Your task to perform on an android device: open app "Grab" (install if not already installed) and enter user name: "interspersion@gmail.com" and password: "aristocrats" Image 0: 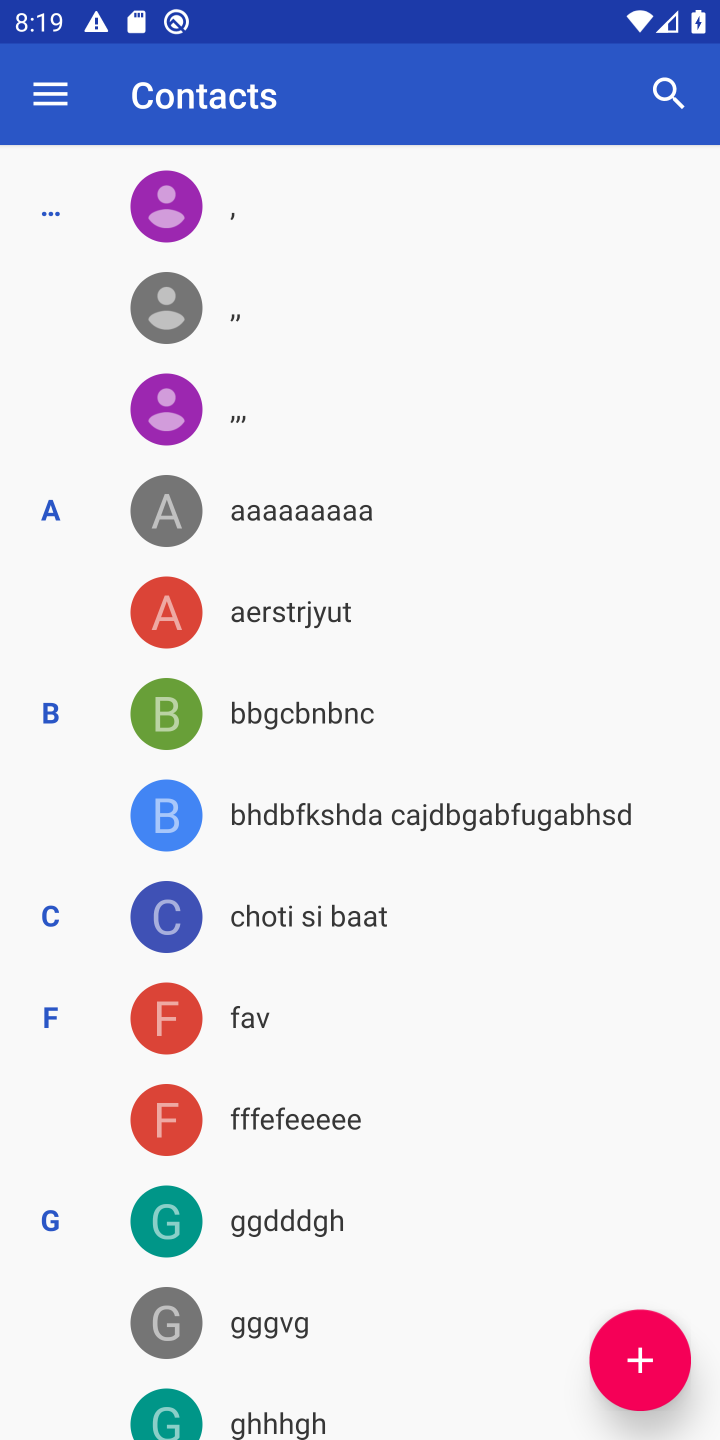
Step 0: press home button
Your task to perform on an android device: open app "Grab" (install if not already installed) and enter user name: "interspersion@gmail.com" and password: "aristocrats" Image 1: 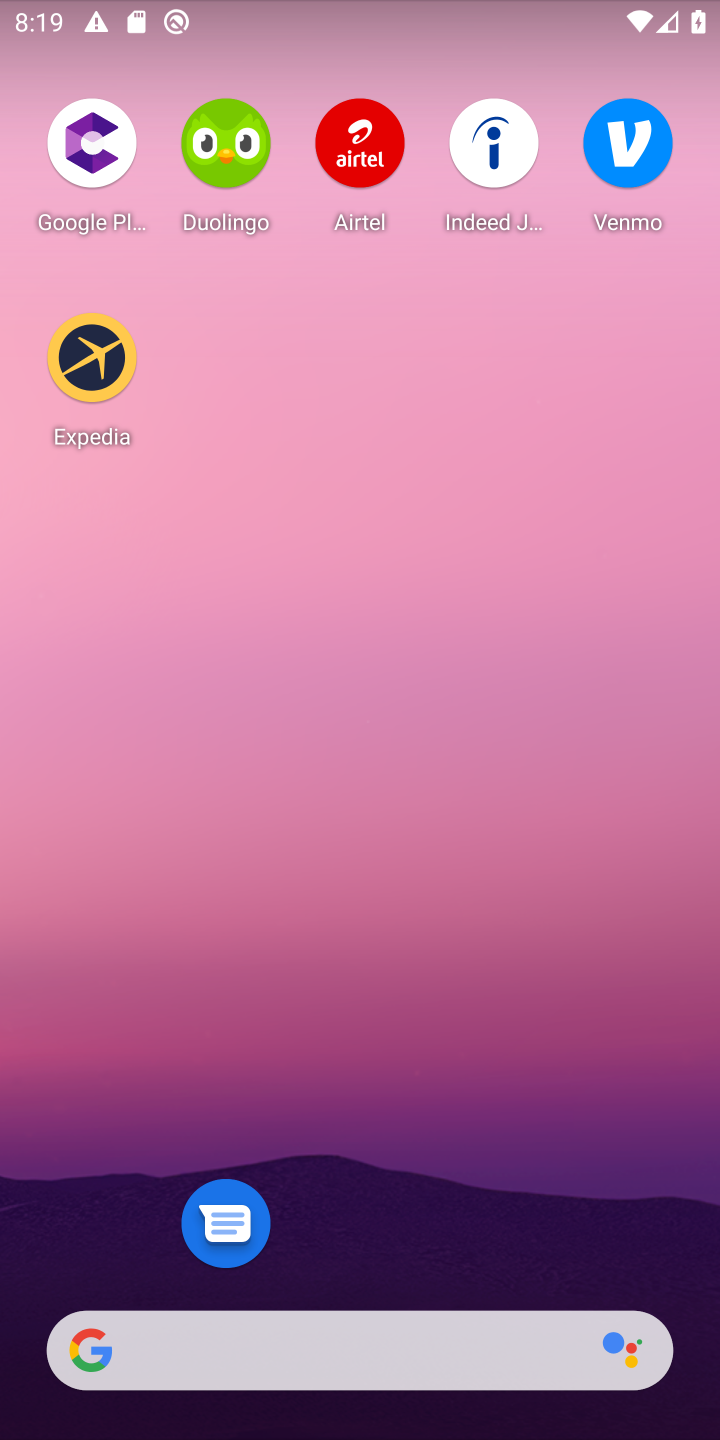
Step 1: drag from (389, 807) to (412, 214)
Your task to perform on an android device: open app "Grab" (install if not already installed) and enter user name: "interspersion@gmail.com" and password: "aristocrats" Image 2: 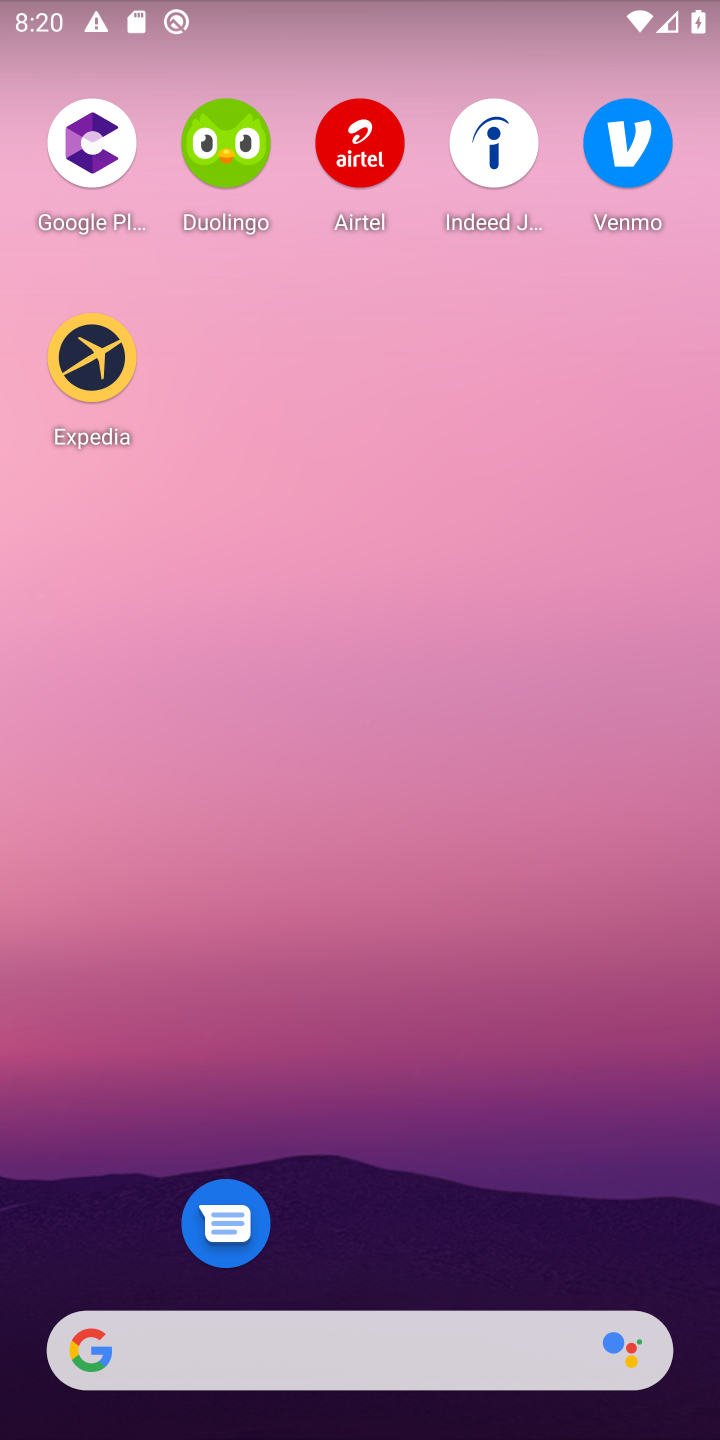
Step 2: drag from (333, 1142) to (308, 214)
Your task to perform on an android device: open app "Grab" (install if not already installed) and enter user name: "interspersion@gmail.com" and password: "aristocrats" Image 3: 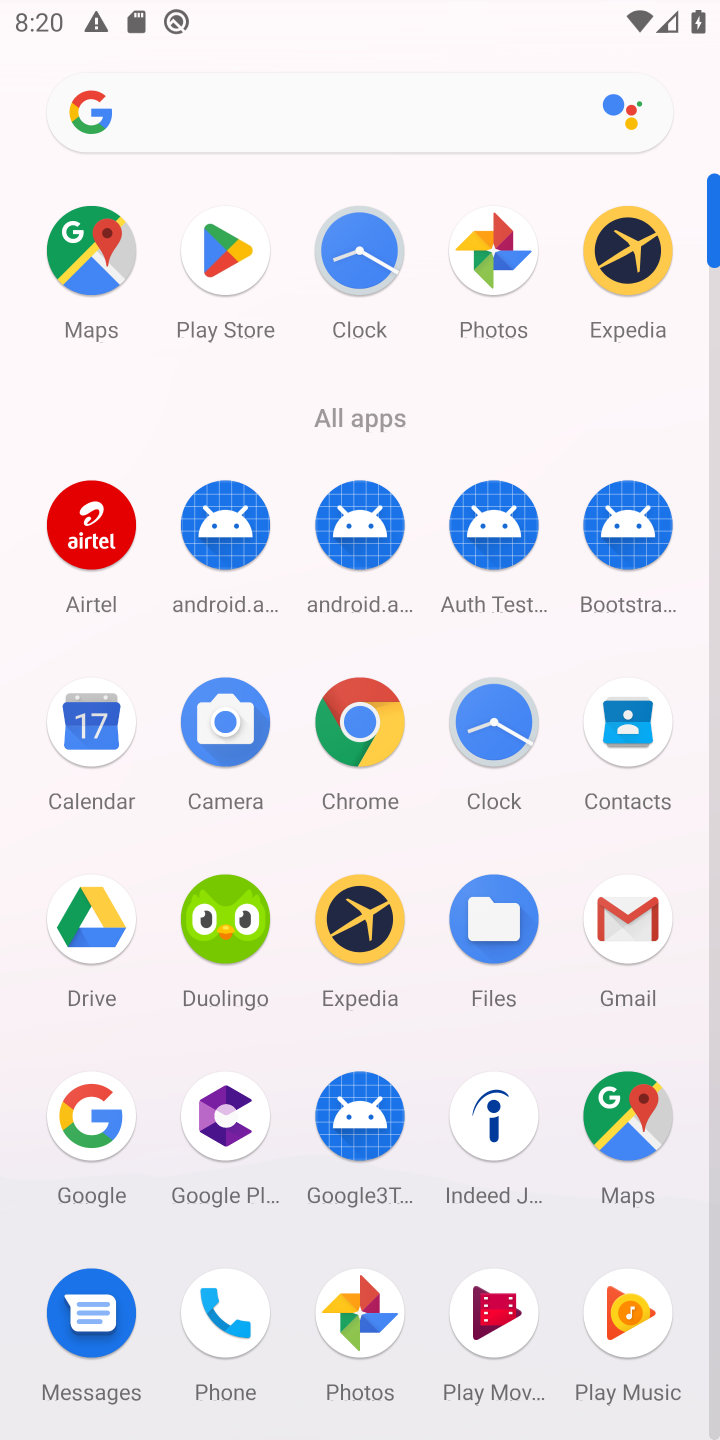
Step 3: click (238, 250)
Your task to perform on an android device: open app "Grab" (install if not already installed) and enter user name: "interspersion@gmail.com" and password: "aristocrats" Image 4: 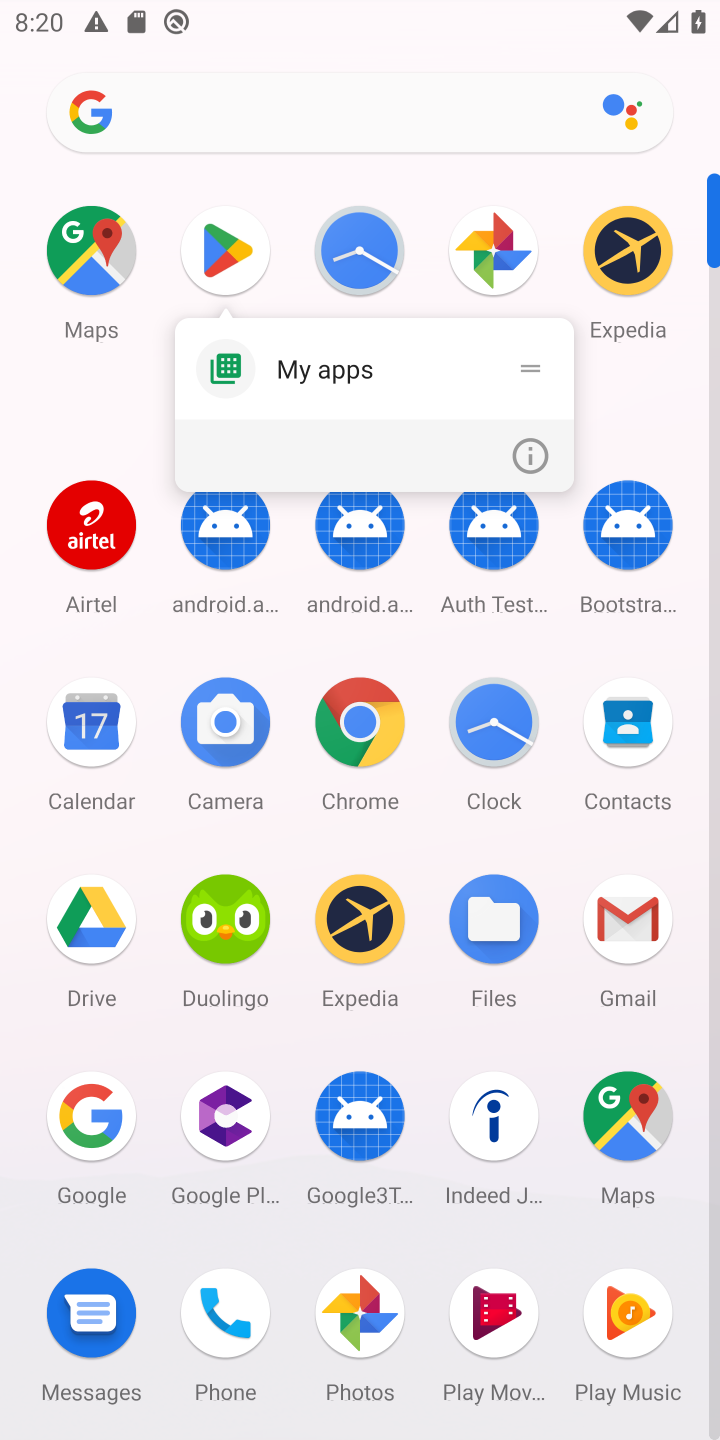
Step 4: click (226, 251)
Your task to perform on an android device: open app "Grab" (install if not already installed) and enter user name: "interspersion@gmail.com" and password: "aristocrats" Image 5: 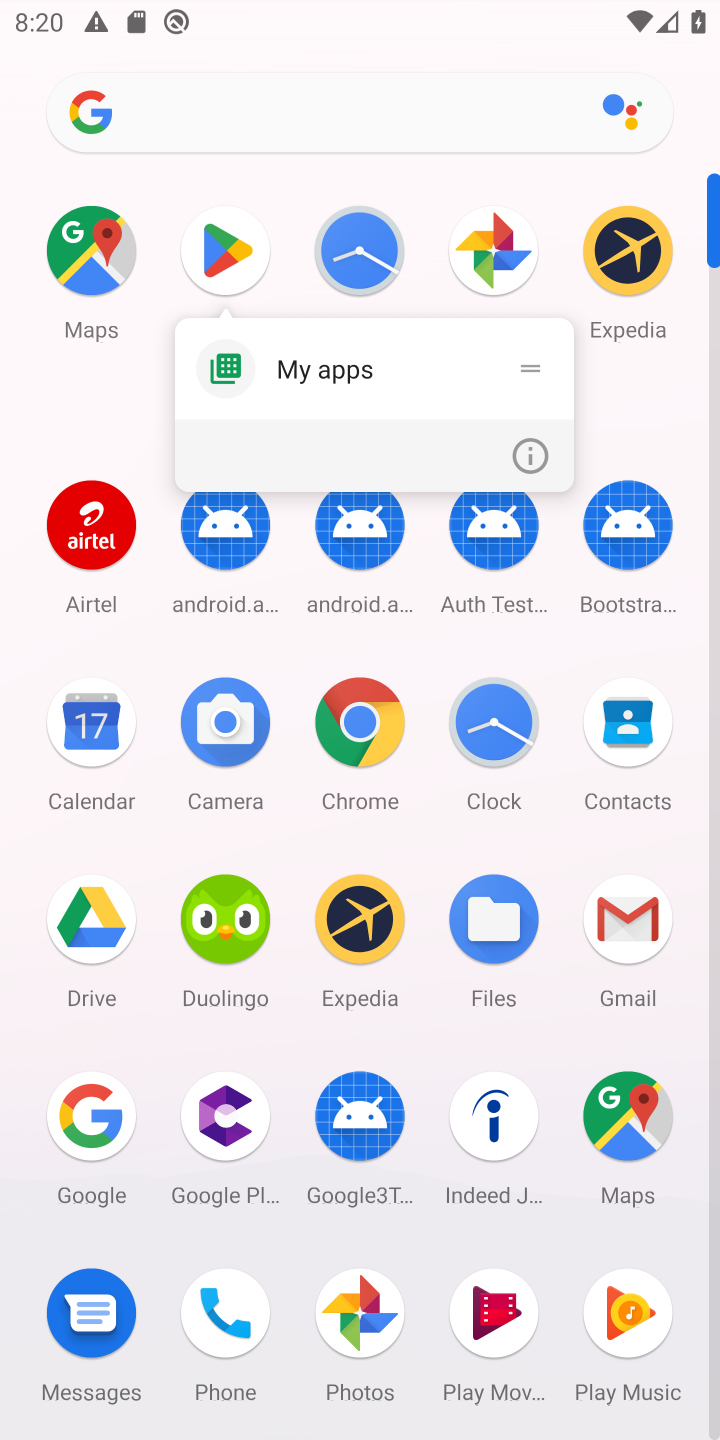
Step 5: click (225, 244)
Your task to perform on an android device: open app "Grab" (install if not already installed) and enter user name: "interspersion@gmail.com" and password: "aristocrats" Image 6: 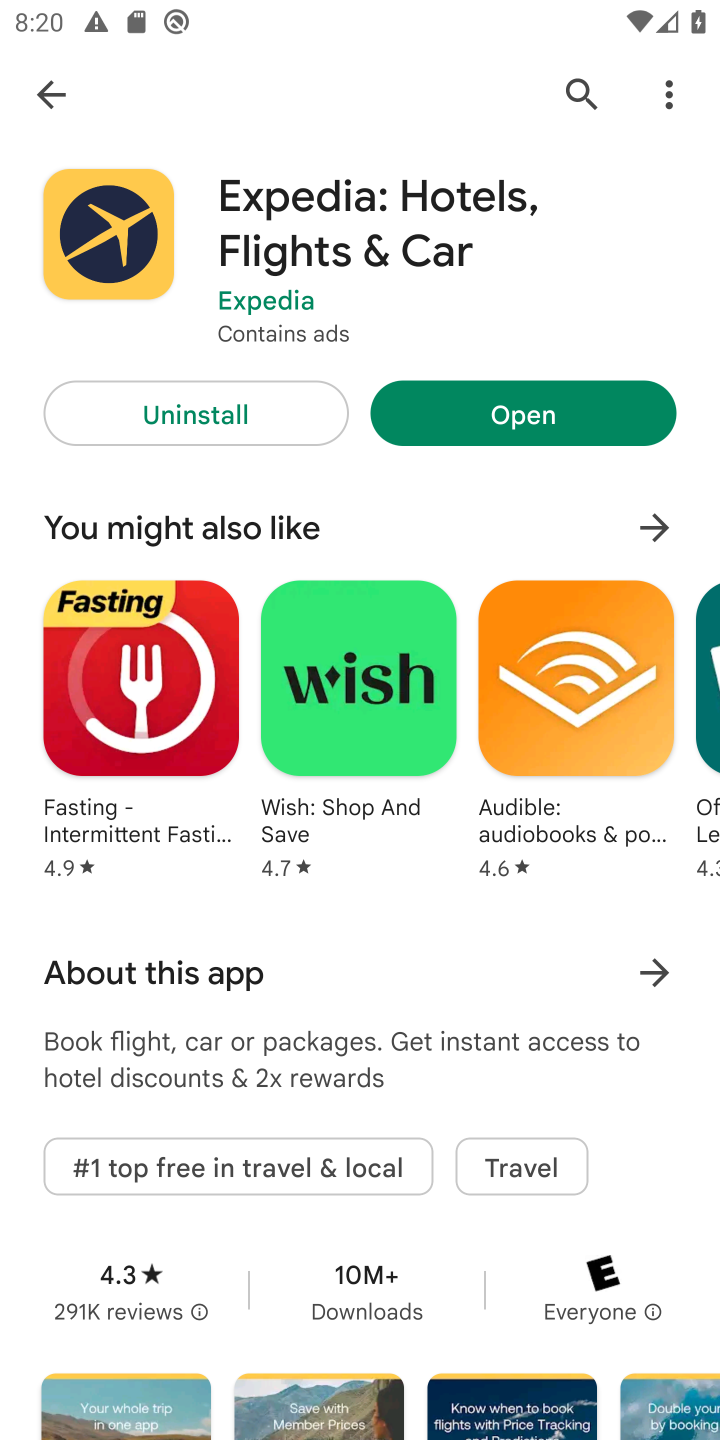
Step 6: click (589, 85)
Your task to perform on an android device: open app "Grab" (install if not already installed) and enter user name: "interspersion@gmail.com" and password: "aristocrats" Image 7: 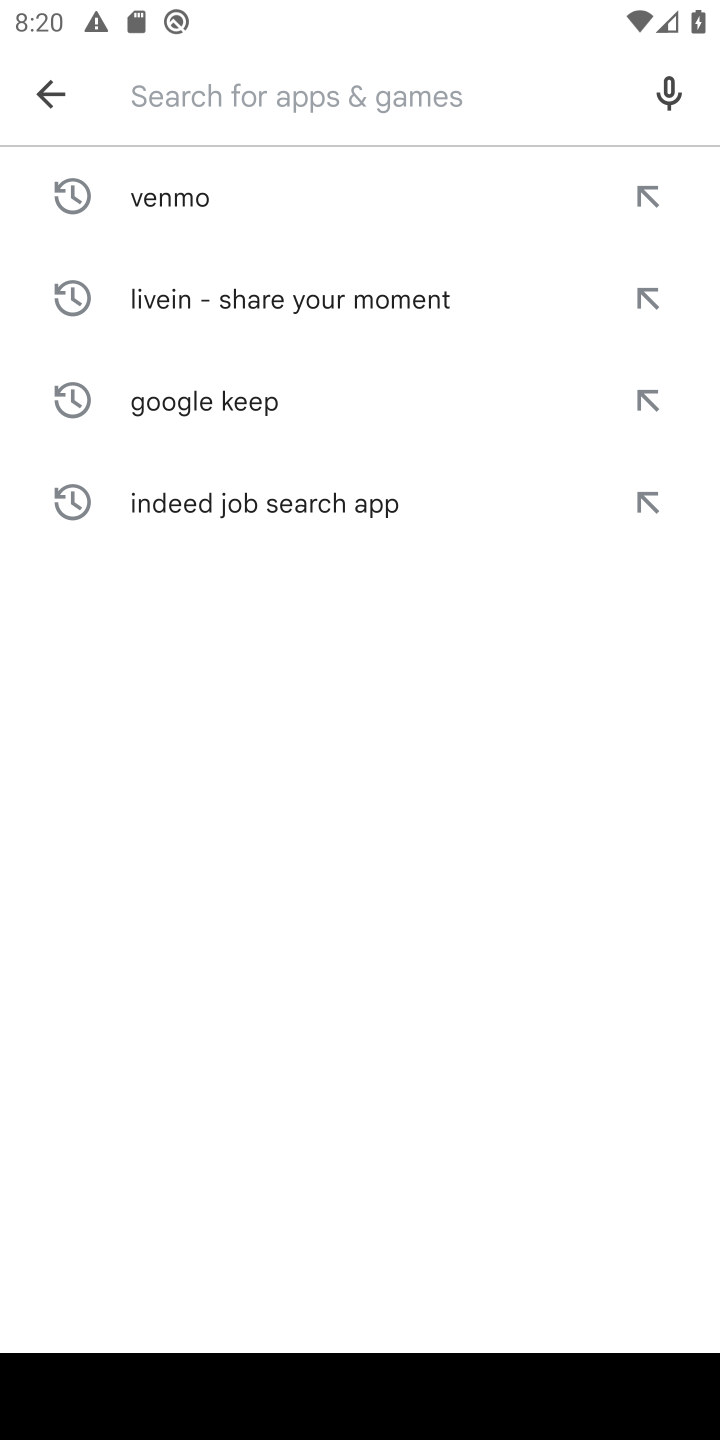
Step 7: type "Grab"
Your task to perform on an android device: open app "Grab" (install if not already installed) and enter user name: "interspersion@gmail.com" and password: "aristocrats" Image 8: 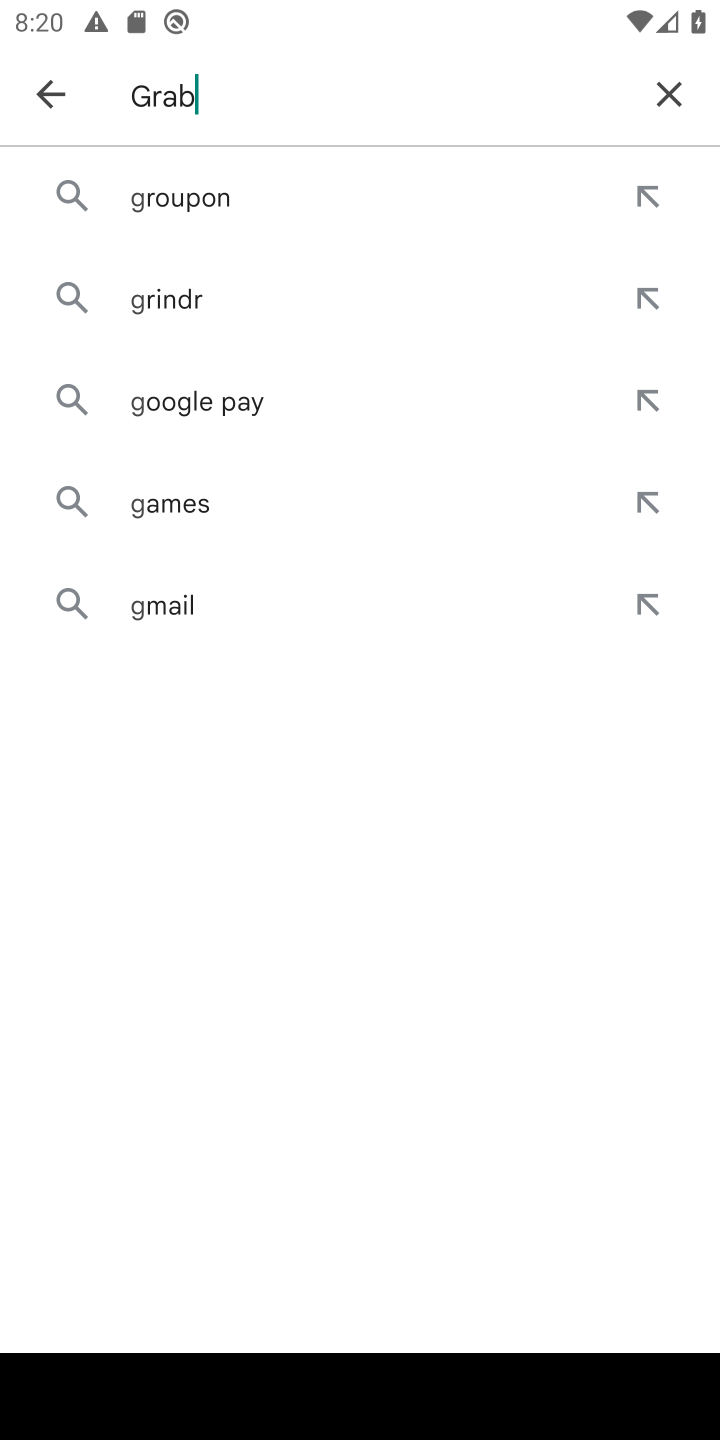
Step 8: type ""
Your task to perform on an android device: open app "Grab" (install if not already installed) and enter user name: "interspersion@gmail.com" and password: "aristocrats" Image 9: 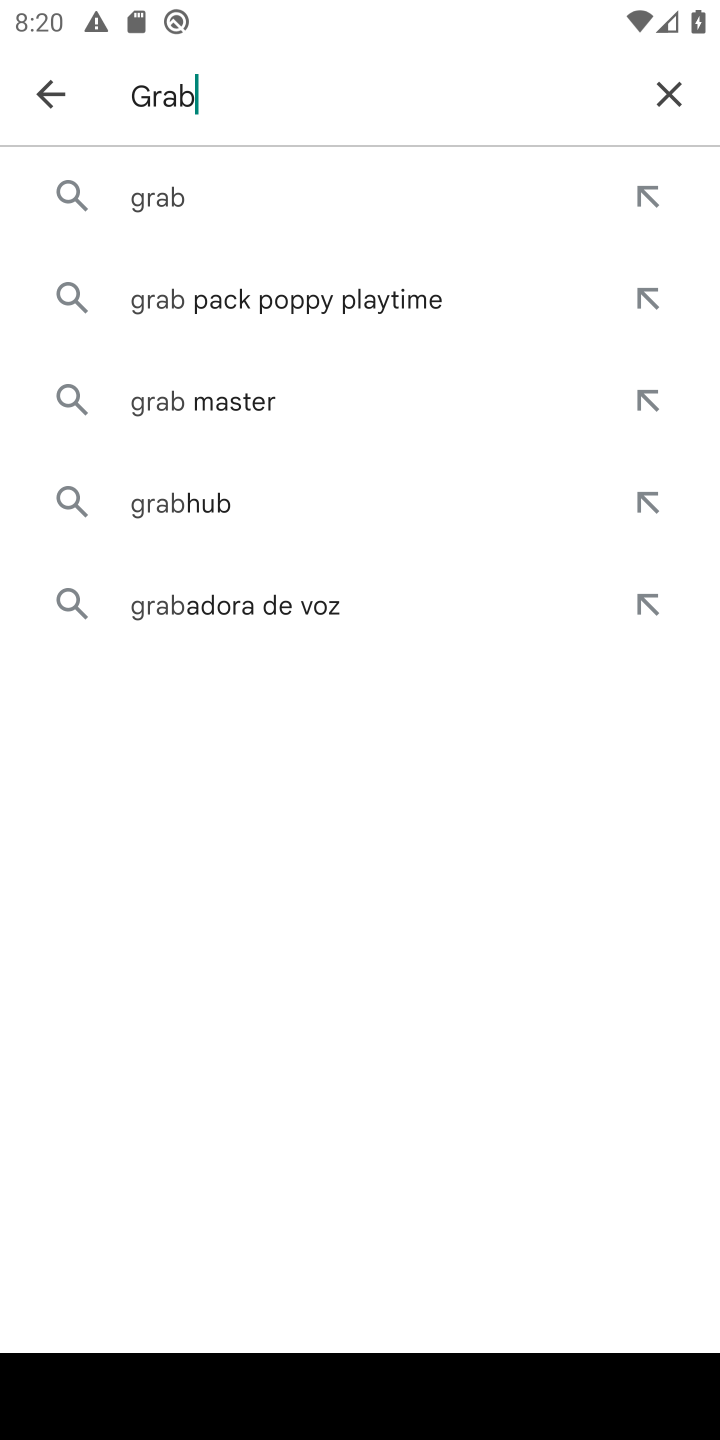
Step 9: click (150, 192)
Your task to perform on an android device: open app "Grab" (install if not already installed) and enter user name: "interspersion@gmail.com" and password: "aristocrats" Image 10: 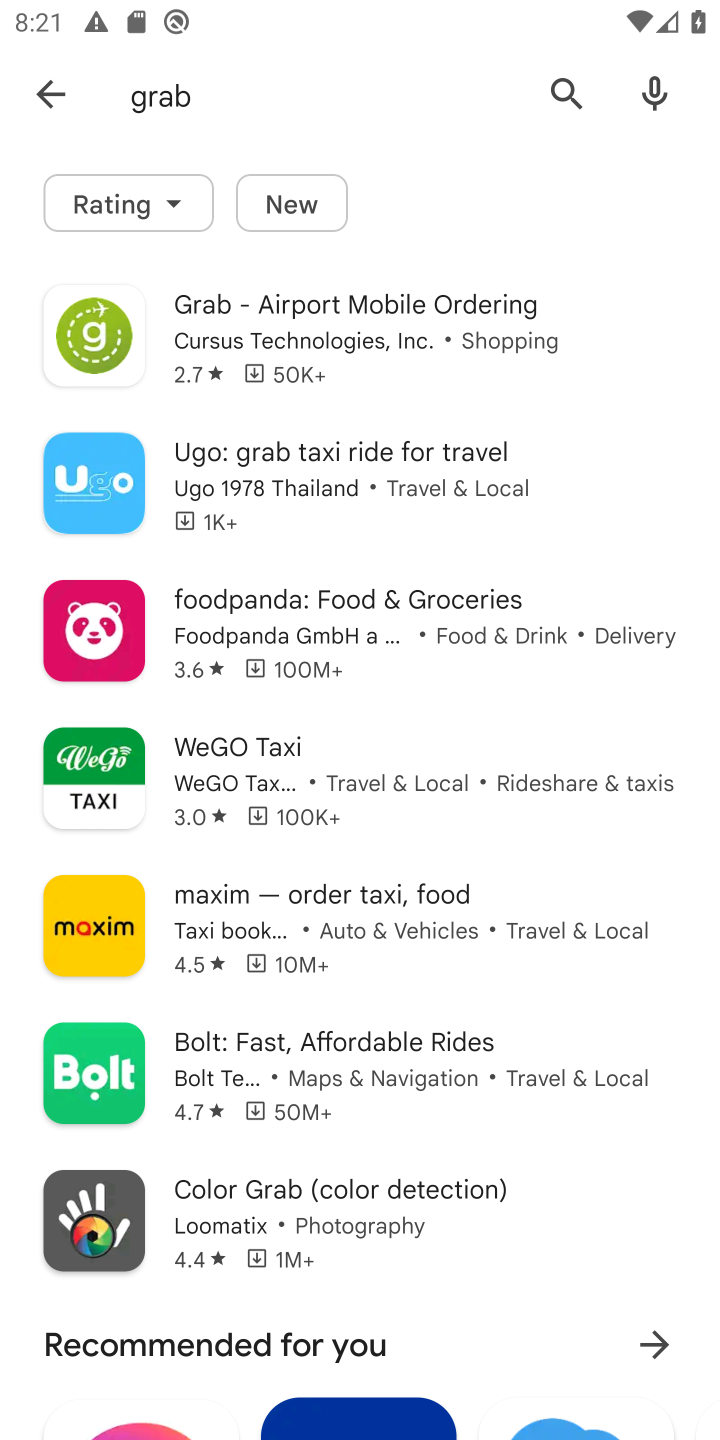
Step 10: click (222, 303)
Your task to perform on an android device: open app "Grab" (install if not already installed) and enter user name: "interspersion@gmail.com" and password: "aristocrats" Image 11: 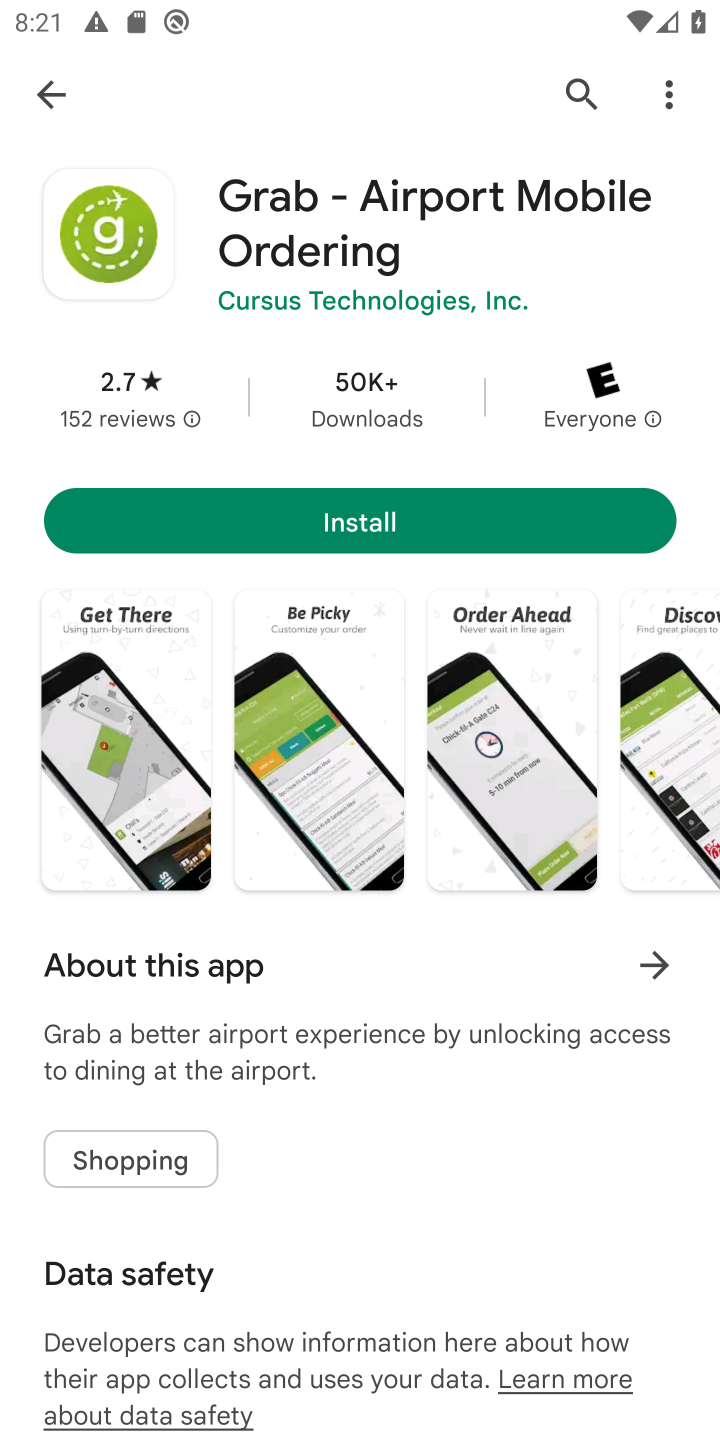
Step 11: click (353, 532)
Your task to perform on an android device: open app "Grab" (install if not already installed) and enter user name: "interspersion@gmail.com" and password: "aristocrats" Image 12: 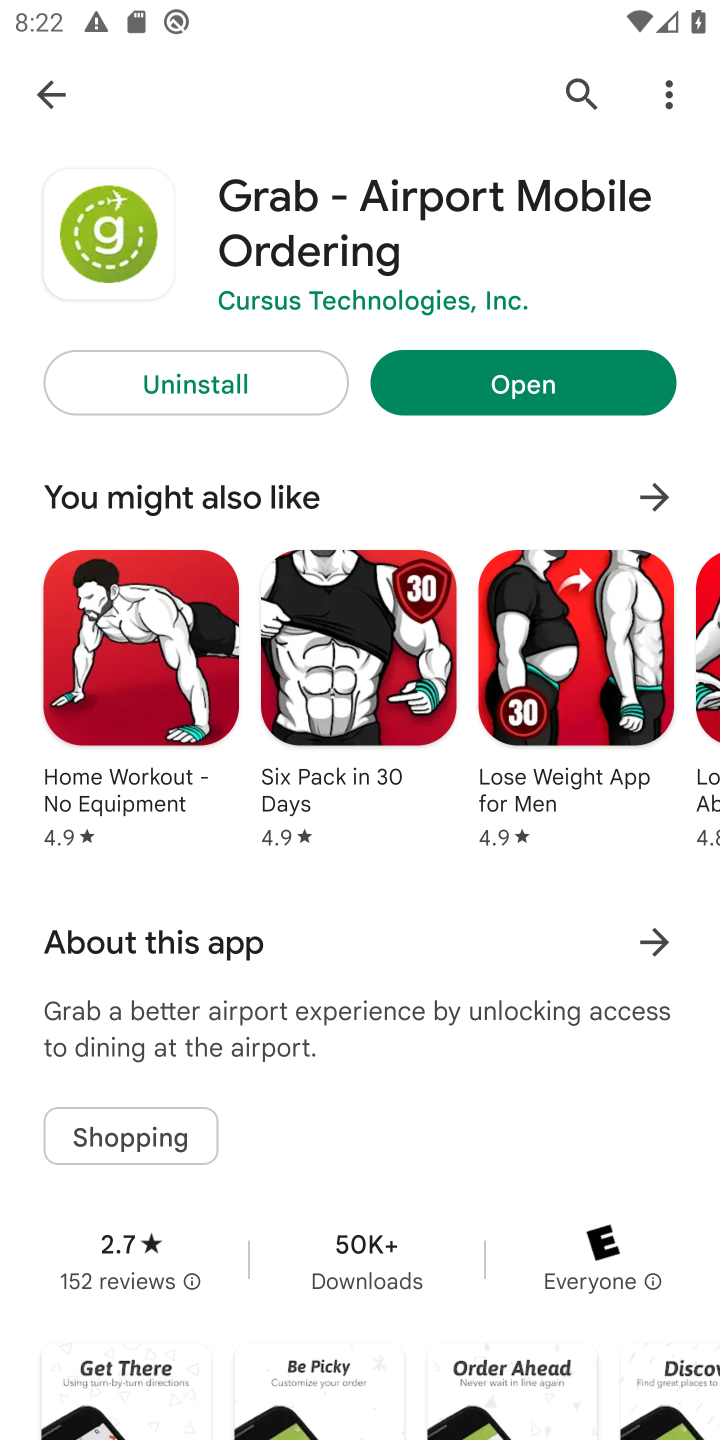
Step 12: click (537, 398)
Your task to perform on an android device: open app "Grab" (install if not already installed) and enter user name: "interspersion@gmail.com" and password: "aristocrats" Image 13: 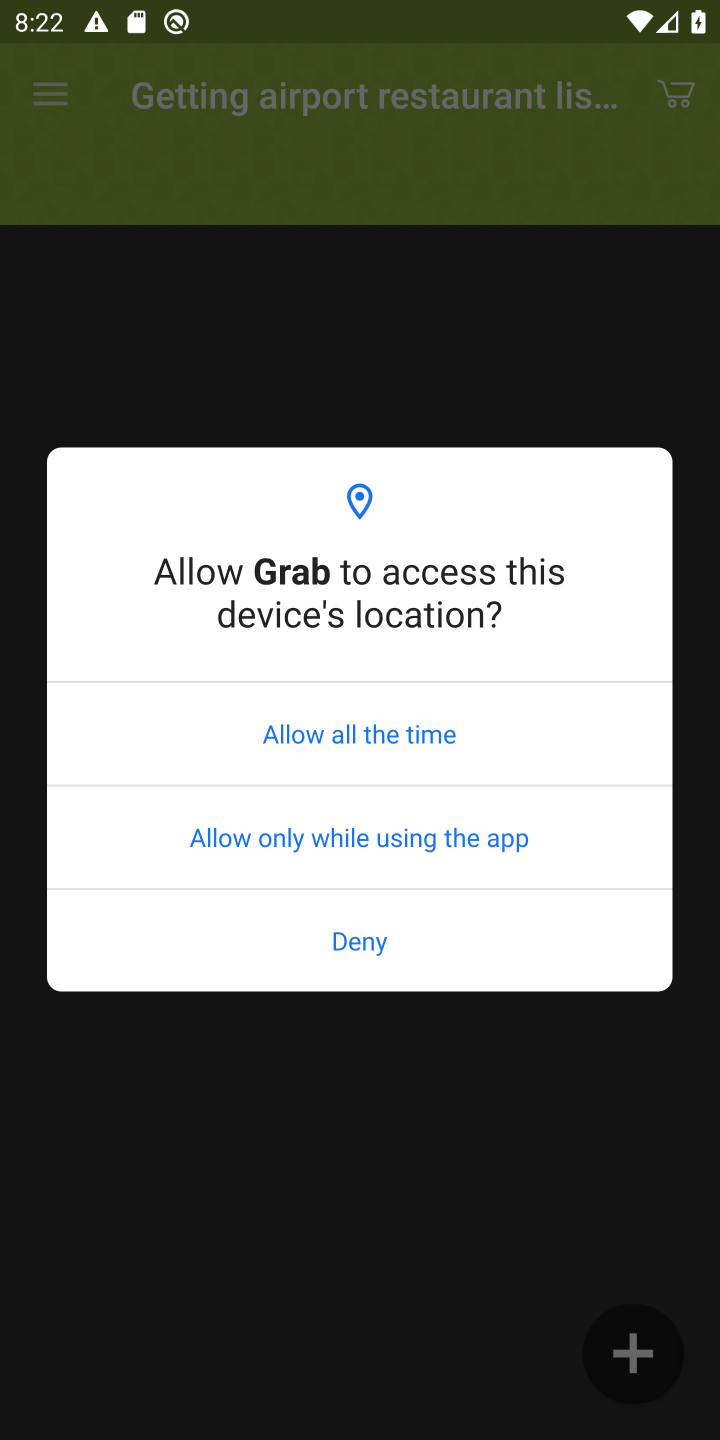
Step 13: click (375, 737)
Your task to perform on an android device: open app "Grab" (install if not already installed) and enter user name: "interspersion@gmail.com" and password: "aristocrats" Image 14: 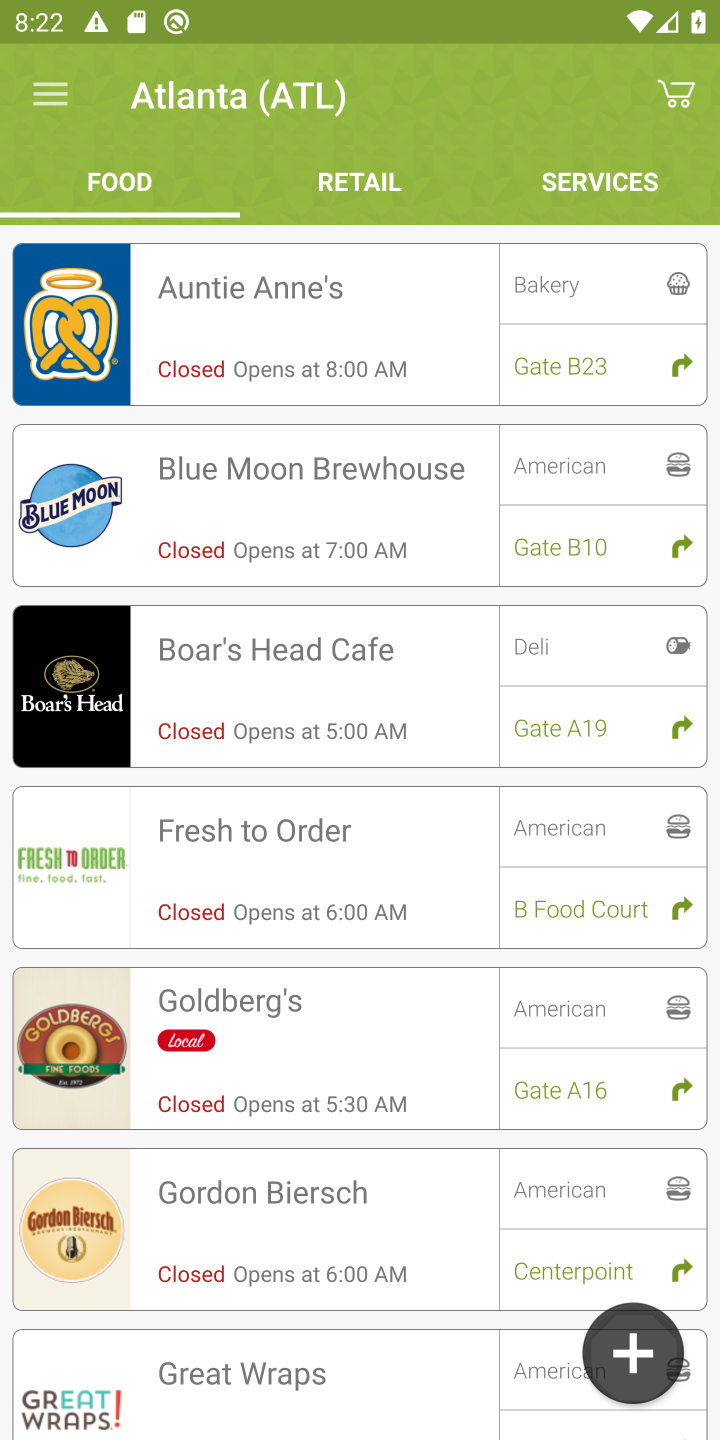
Step 14: click (37, 80)
Your task to perform on an android device: open app "Grab" (install if not already installed) and enter user name: "interspersion@gmail.com" and password: "aristocrats" Image 15: 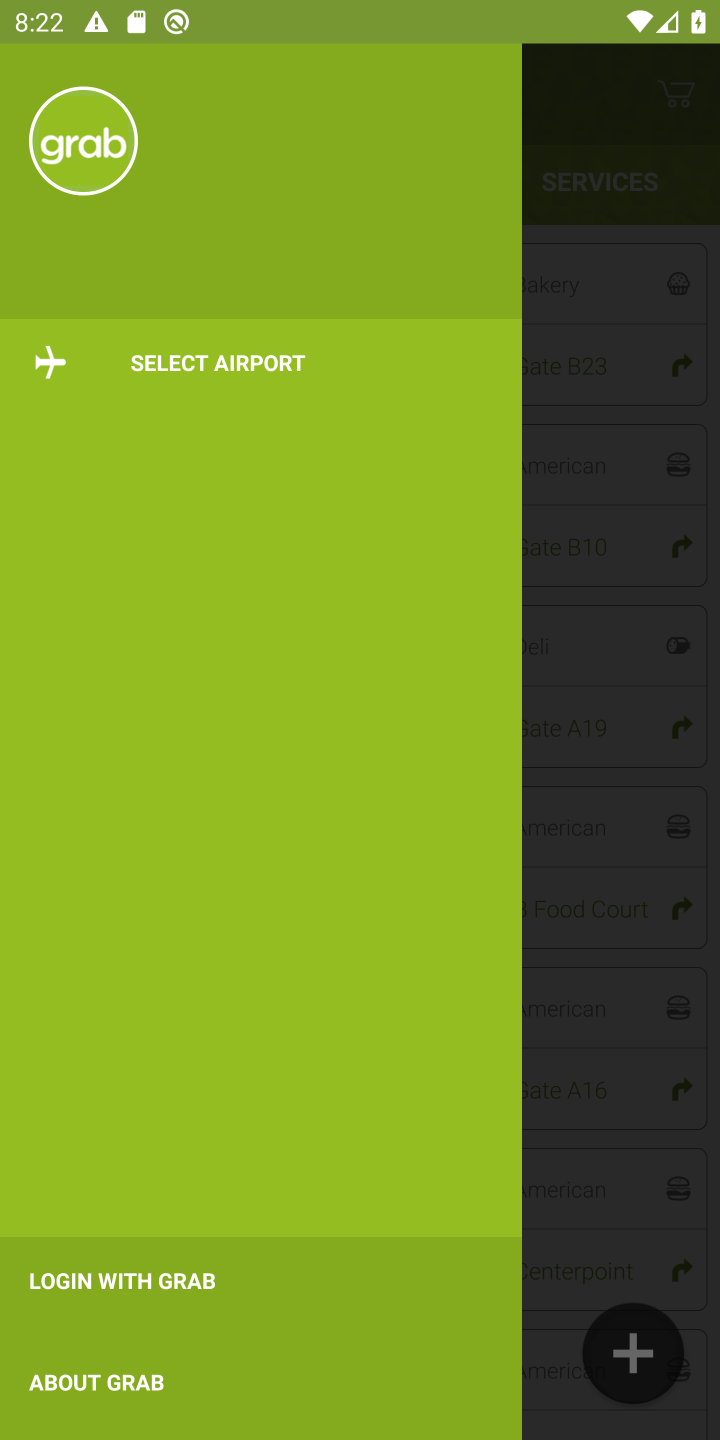
Step 15: click (182, 1284)
Your task to perform on an android device: open app "Grab" (install if not already installed) and enter user name: "interspersion@gmail.com" and password: "aristocrats" Image 16: 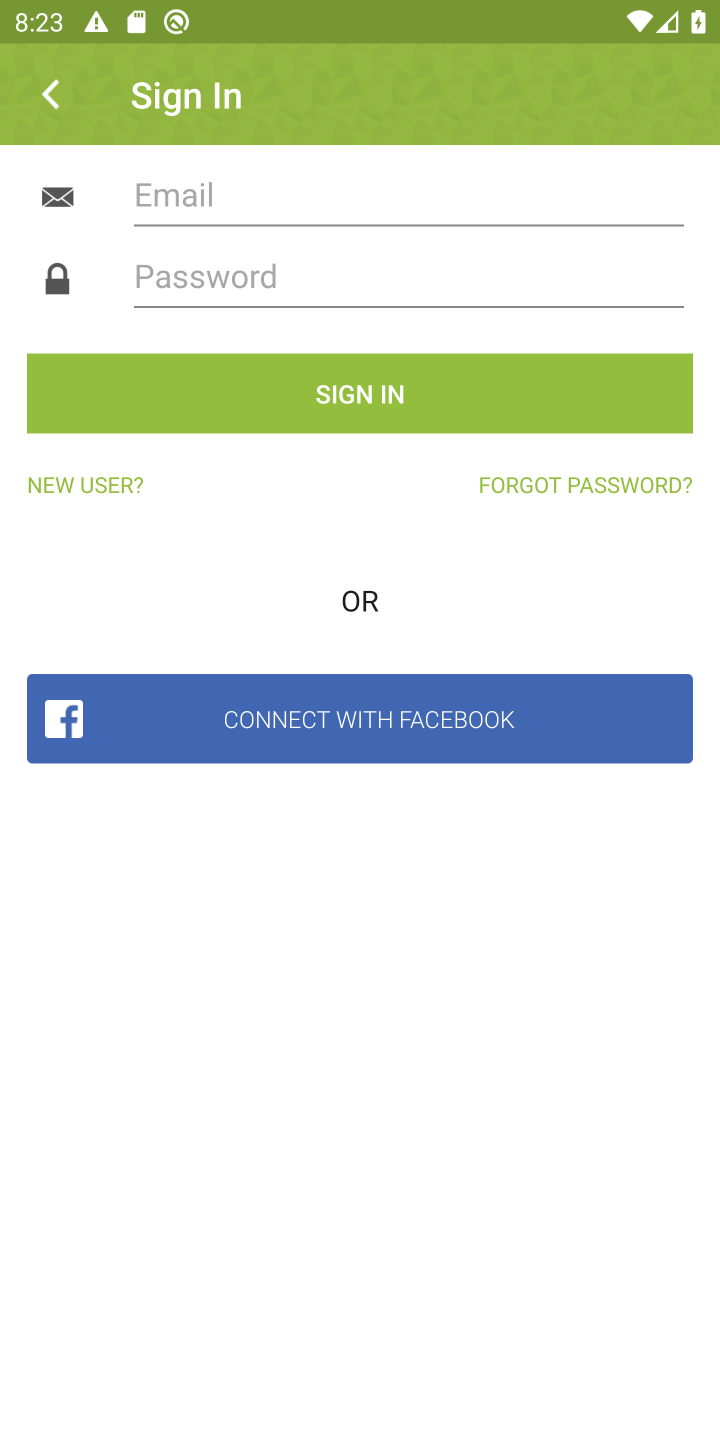
Step 16: click (427, 201)
Your task to perform on an android device: open app "Grab" (install if not already installed) and enter user name: "interspersion@gmail.com" and password: "aristocrats" Image 17: 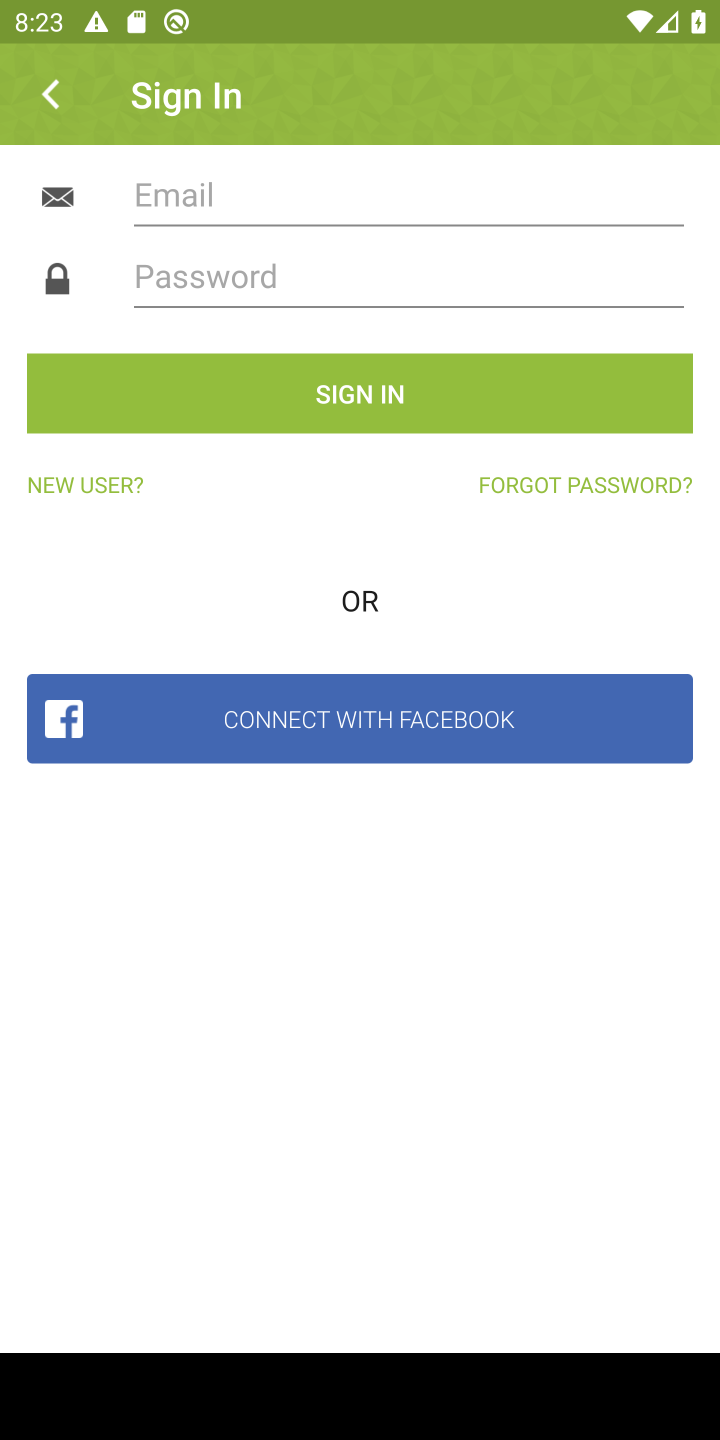
Step 17: type "interspersion@gmail.com"
Your task to perform on an android device: open app "Grab" (install if not already installed) and enter user name: "interspersion@gmail.com" and password: "aristocrats" Image 18: 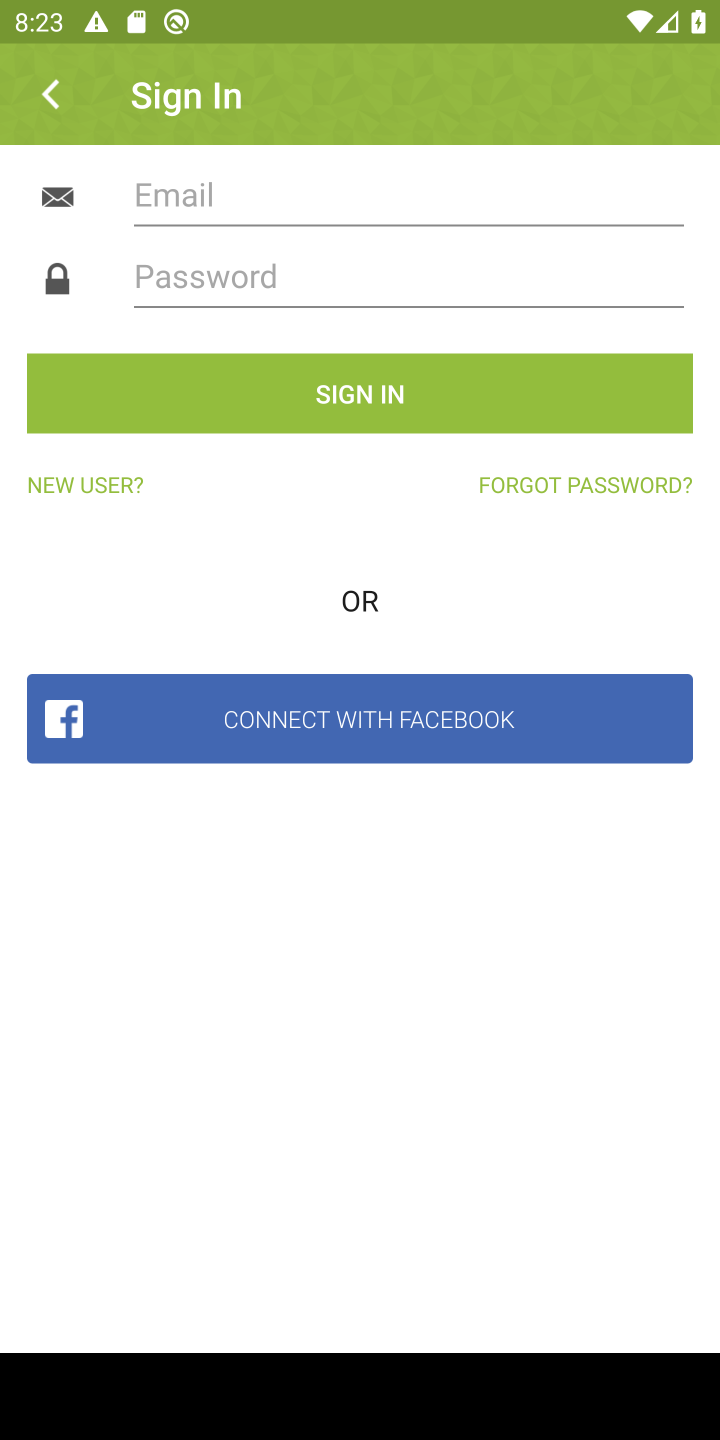
Step 18: click (310, 263)
Your task to perform on an android device: open app "Grab" (install if not already installed) and enter user name: "interspersion@gmail.com" and password: "aristocrats" Image 19: 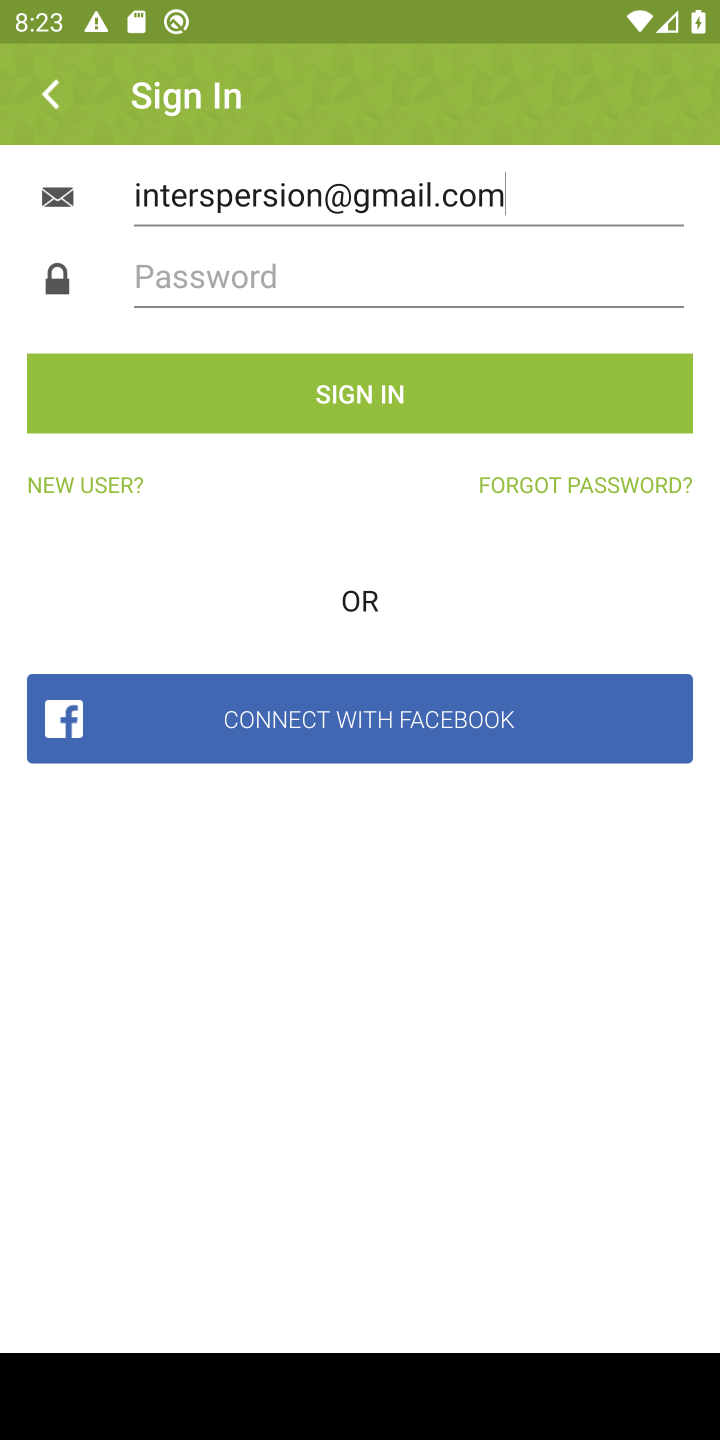
Step 19: type ""
Your task to perform on an android device: open app "Grab" (install if not already installed) and enter user name: "interspersion@gmail.com" and password: "aristocrats" Image 20: 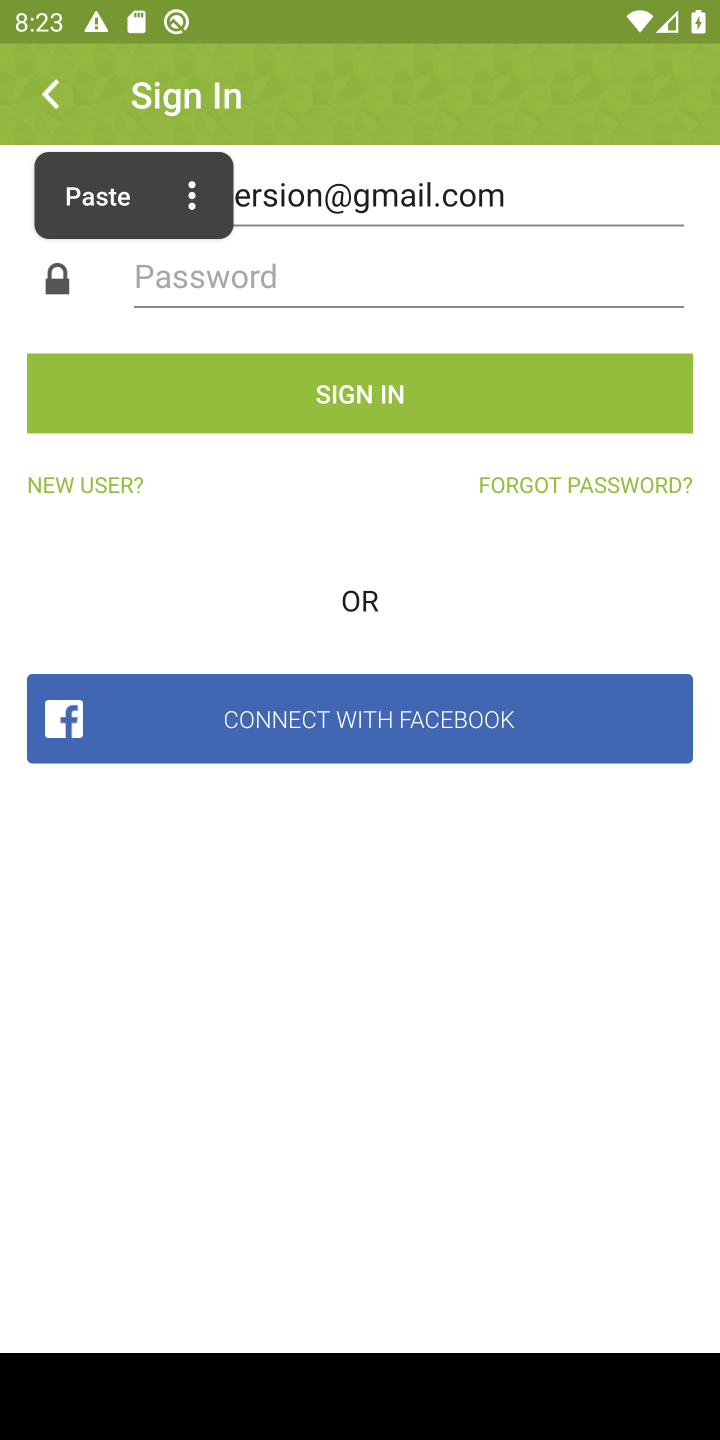
Step 20: click (224, 258)
Your task to perform on an android device: open app "Grab" (install if not already installed) and enter user name: "interspersion@gmail.com" and password: "aristocrats" Image 21: 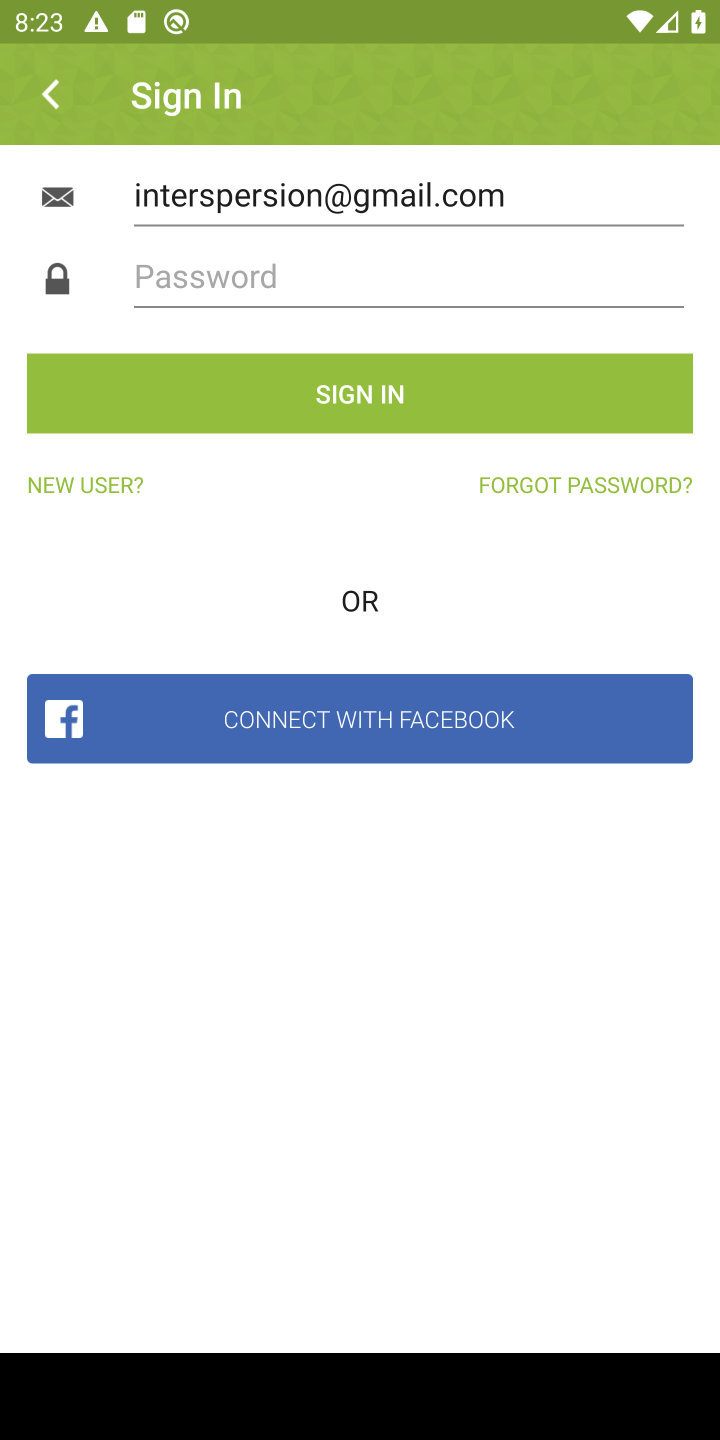
Step 21: type "aristocrats"
Your task to perform on an android device: open app "Grab" (install if not already installed) and enter user name: "interspersion@gmail.com" and password: "aristocrats" Image 22: 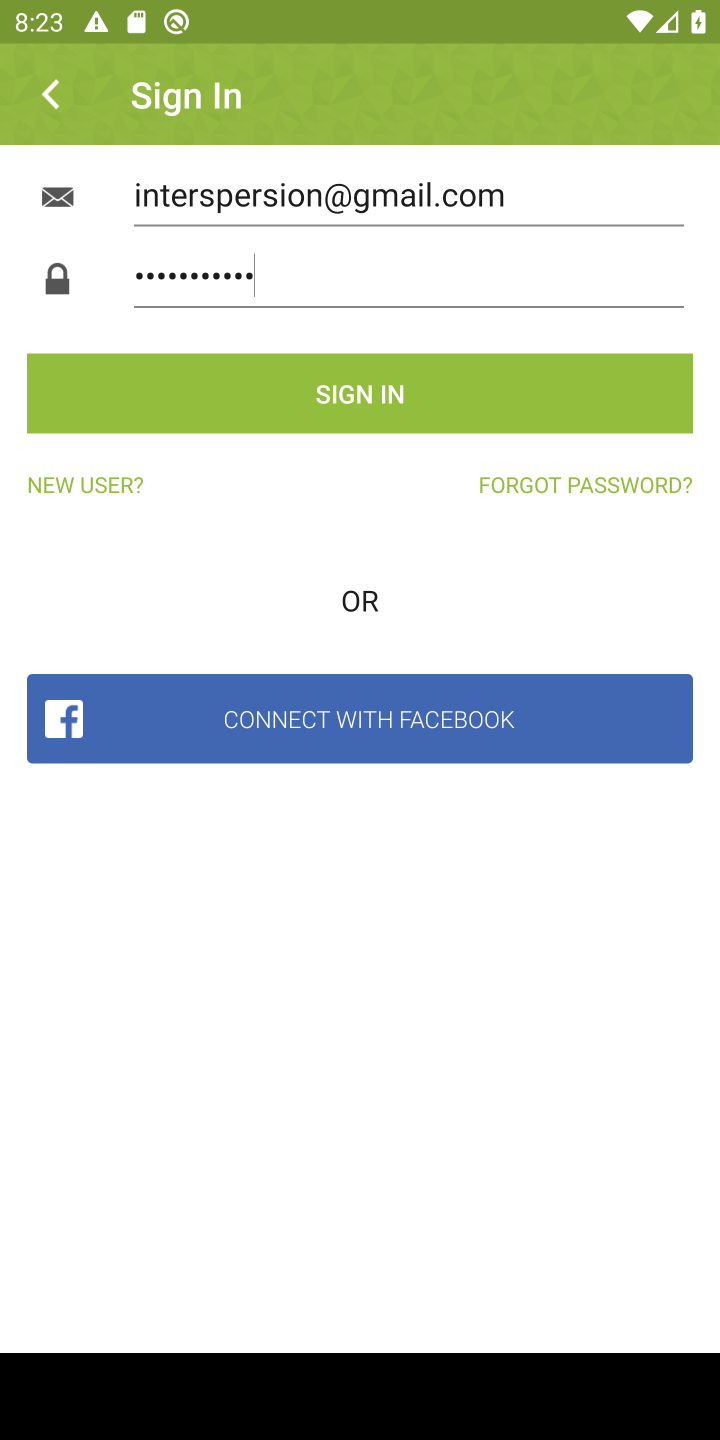
Step 22: task complete